Your task to perform on an android device: open app "Contacts" Image 0: 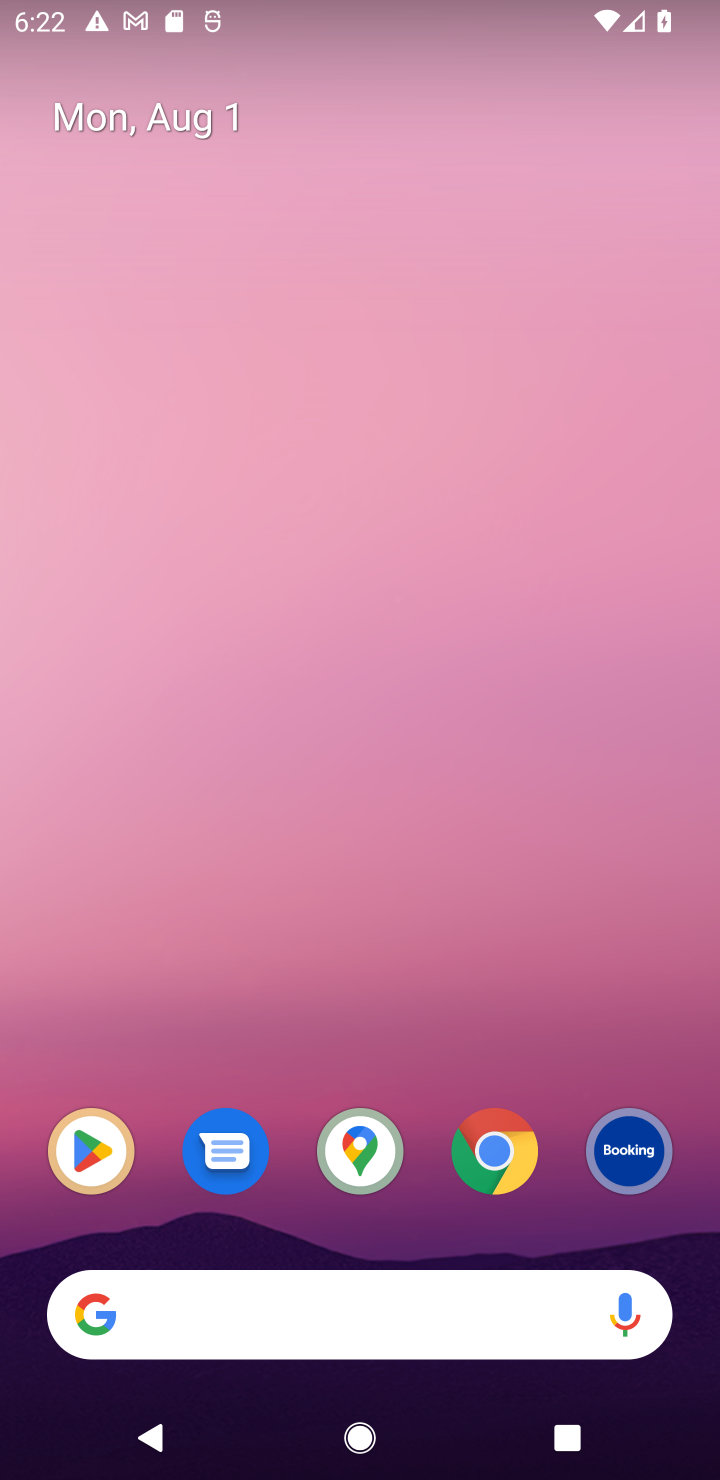
Step 0: drag from (357, 1332) to (396, 206)
Your task to perform on an android device: open app "Contacts" Image 1: 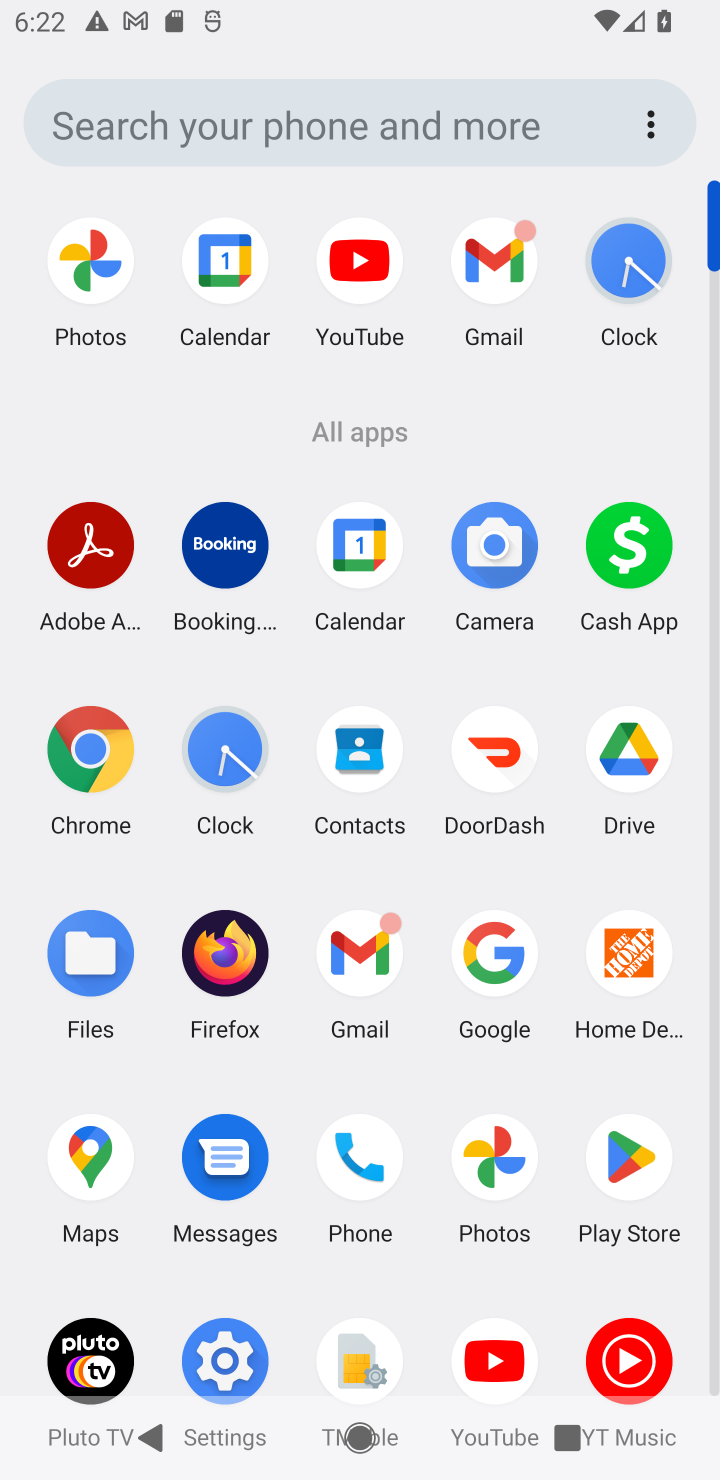
Step 1: click (644, 1145)
Your task to perform on an android device: open app "Contacts" Image 2: 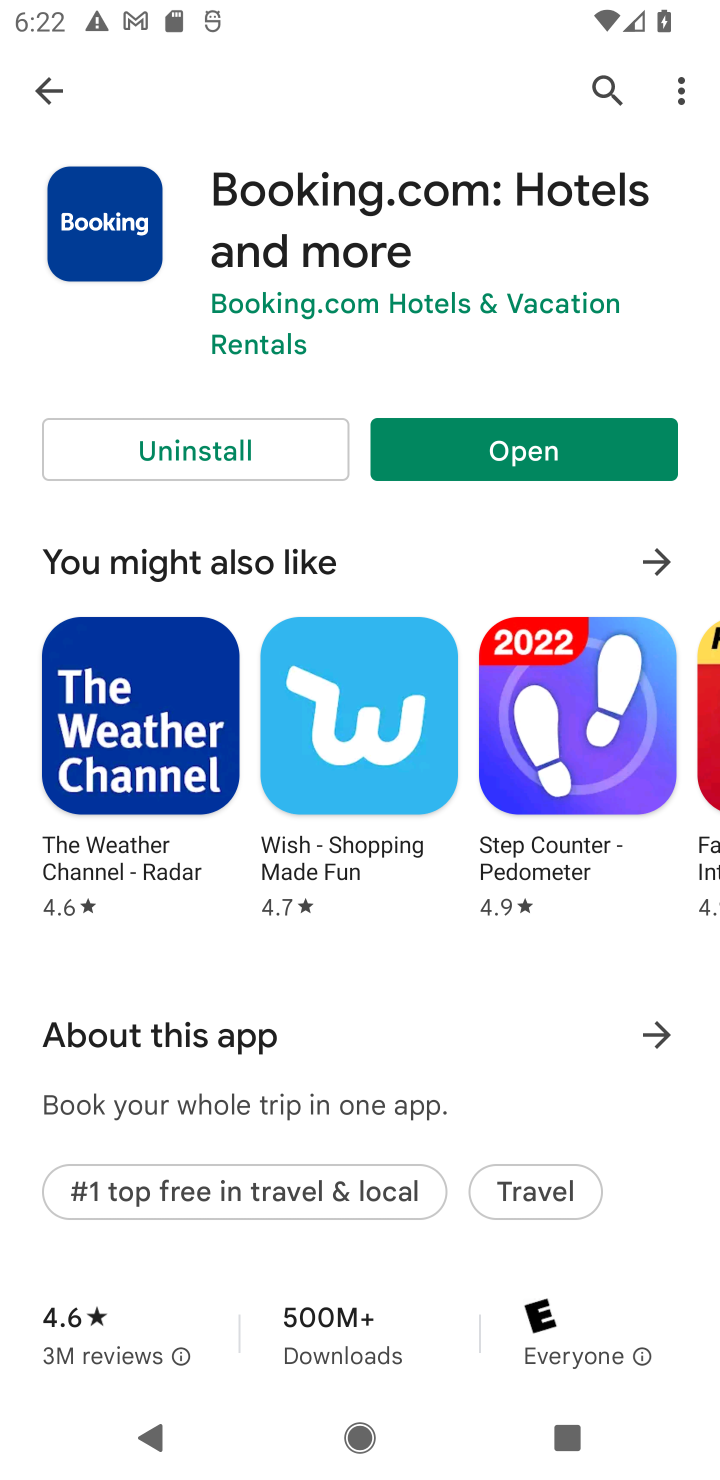
Step 2: click (641, 89)
Your task to perform on an android device: open app "Contacts" Image 3: 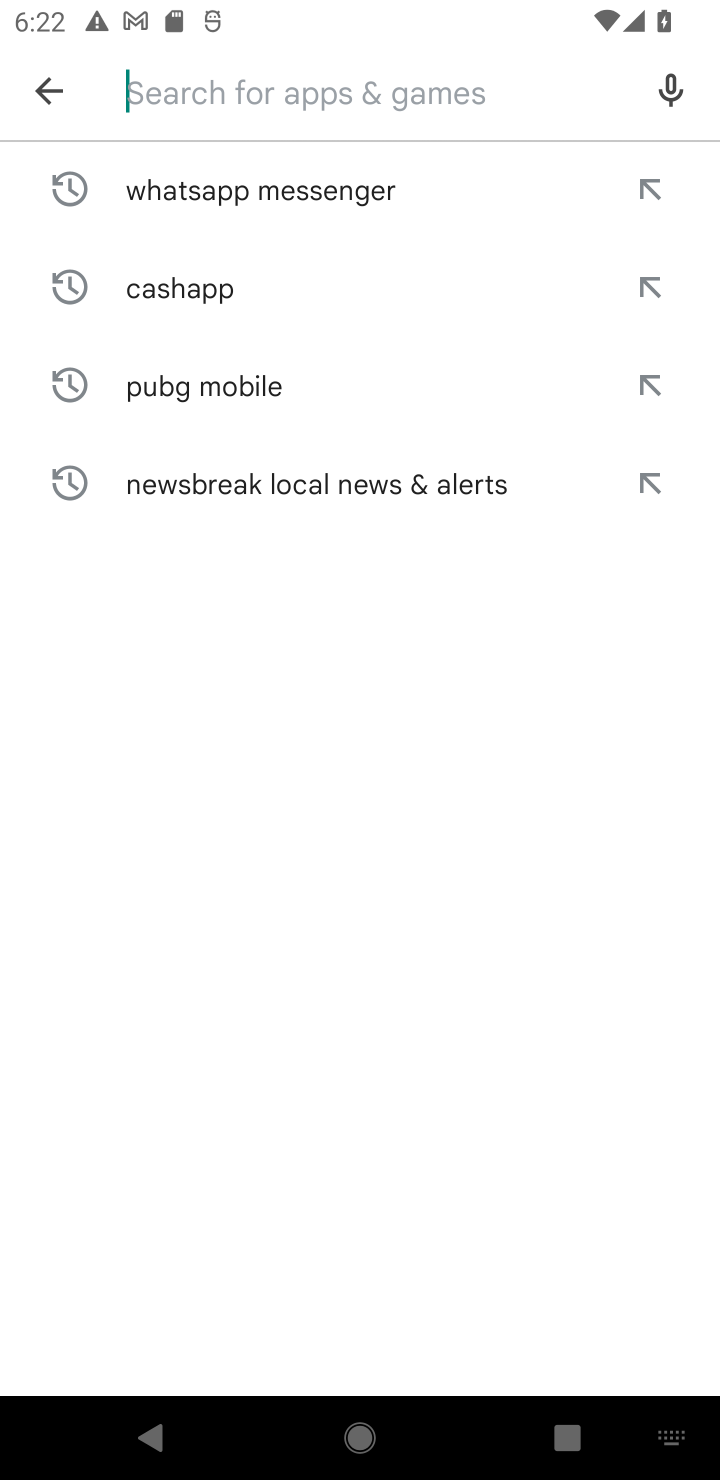
Step 3: type "contacts"
Your task to perform on an android device: open app "Contacts" Image 4: 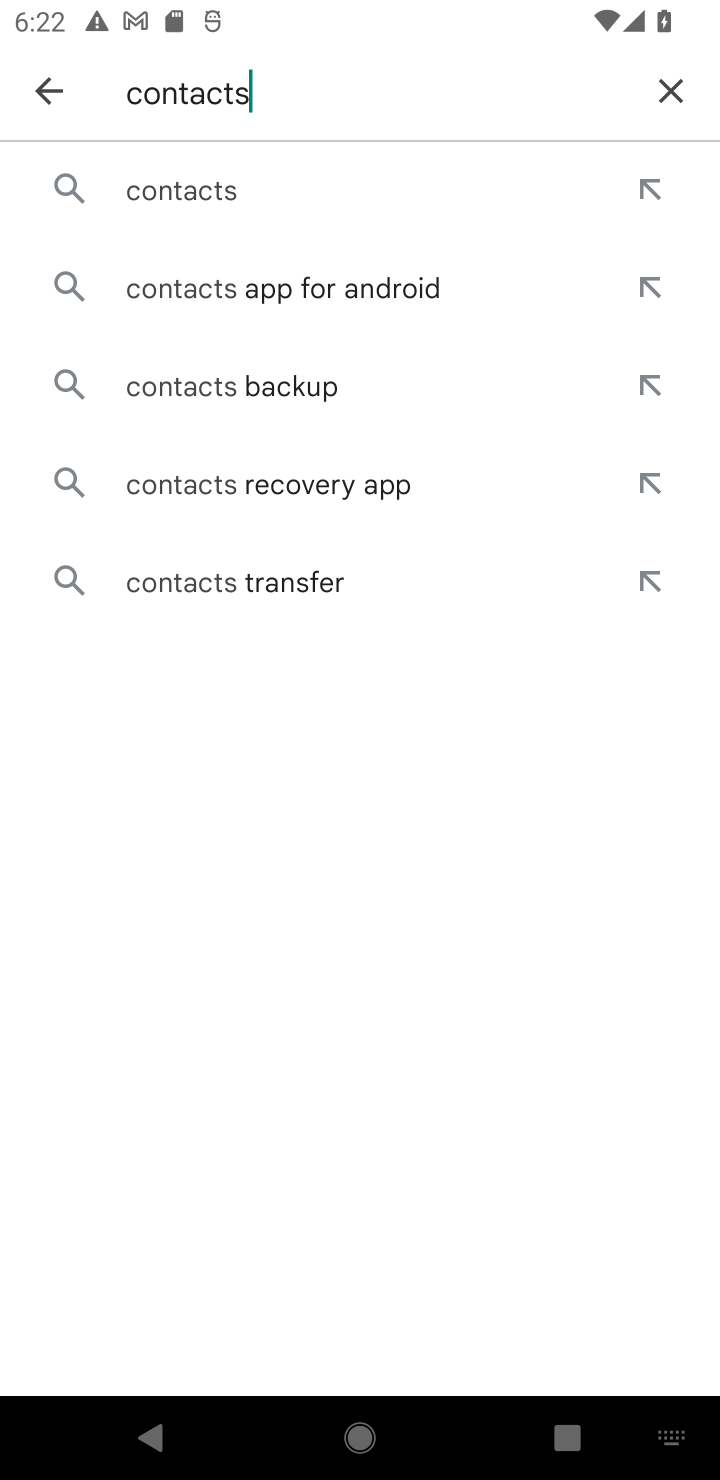
Step 4: click (225, 190)
Your task to perform on an android device: open app "Contacts" Image 5: 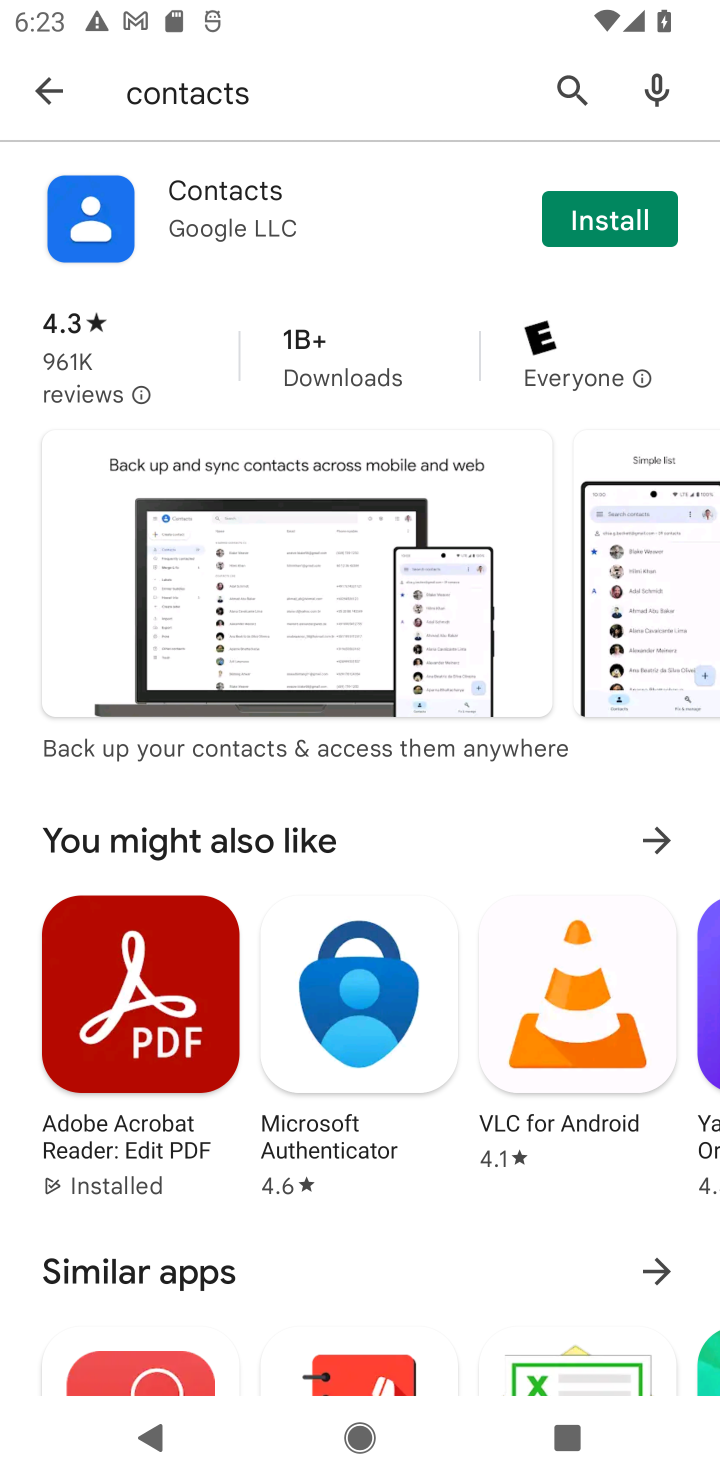
Step 5: task complete